Your task to perform on an android device: When is my next appointment? Image 0: 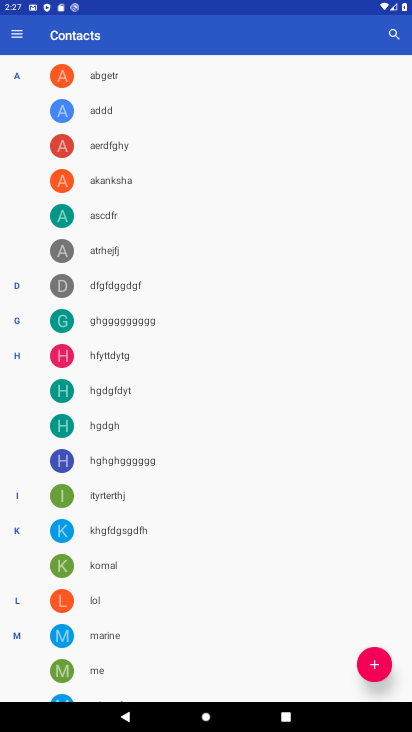
Step 0: press home button
Your task to perform on an android device: When is my next appointment? Image 1: 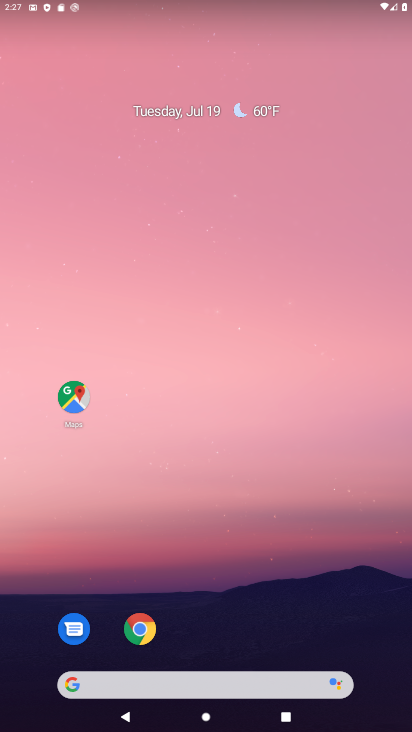
Step 1: drag from (288, 521) to (256, 187)
Your task to perform on an android device: When is my next appointment? Image 2: 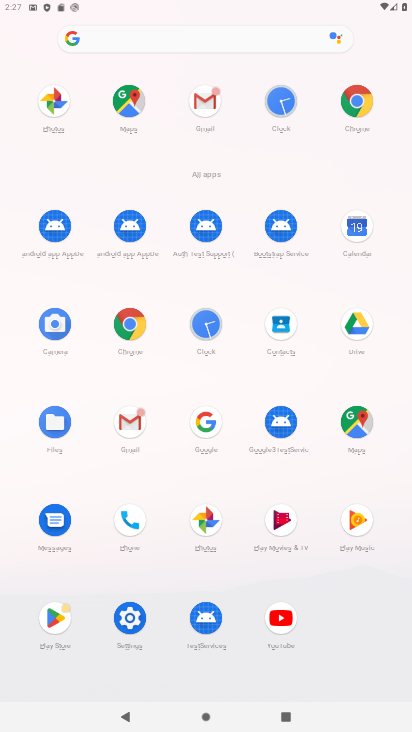
Step 2: drag from (351, 607) to (50, 615)
Your task to perform on an android device: When is my next appointment? Image 3: 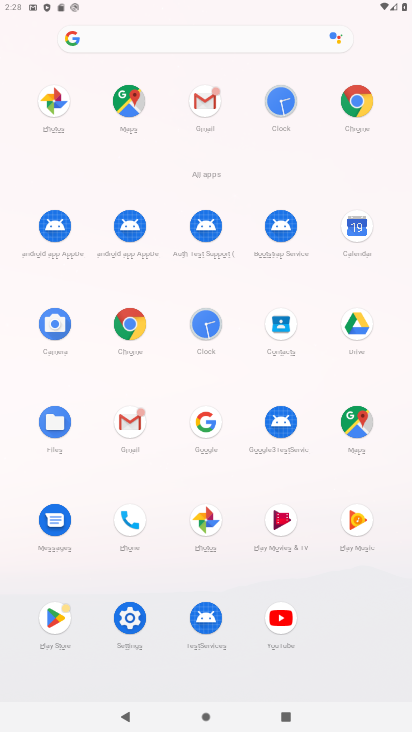
Step 3: click (352, 227)
Your task to perform on an android device: When is my next appointment? Image 4: 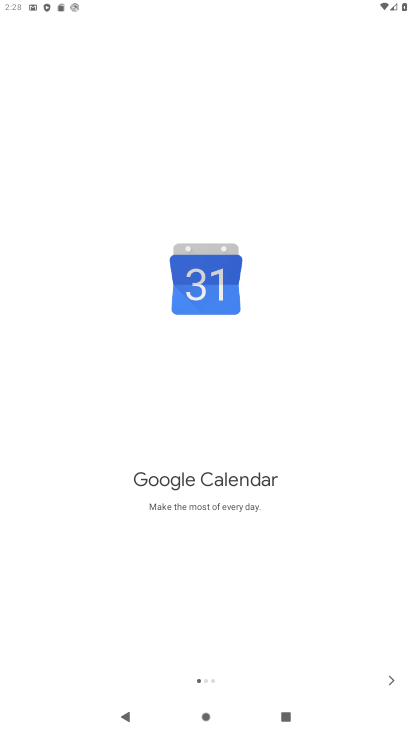
Step 4: click (387, 680)
Your task to perform on an android device: When is my next appointment? Image 5: 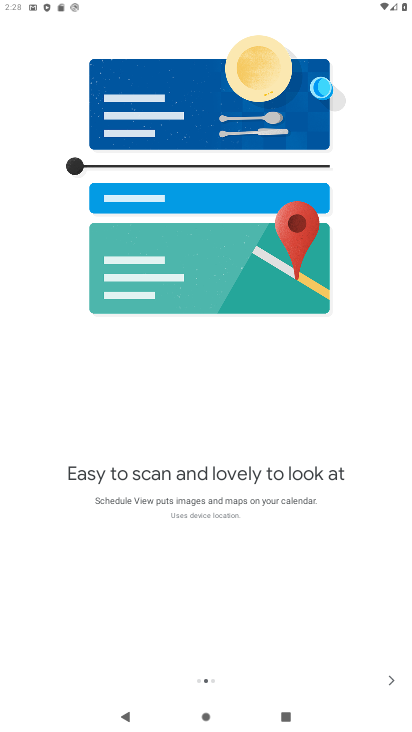
Step 5: click (387, 680)
Your task to perform on an android device: When is my next appointment? Image 6: 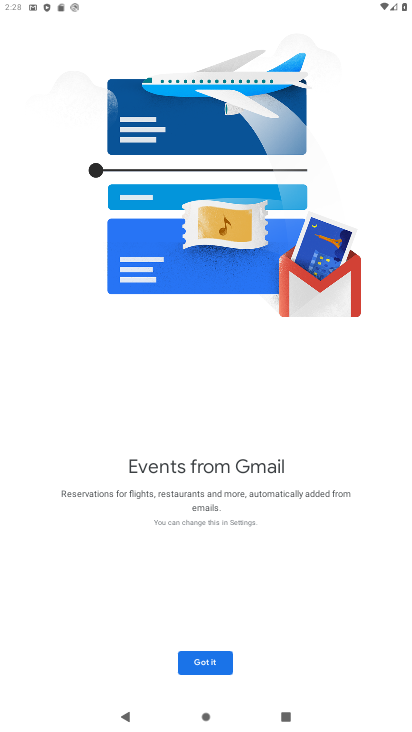
Step 6: click (387, 680)
Your task to perform on an android device: When is my next appointment? Image 7: 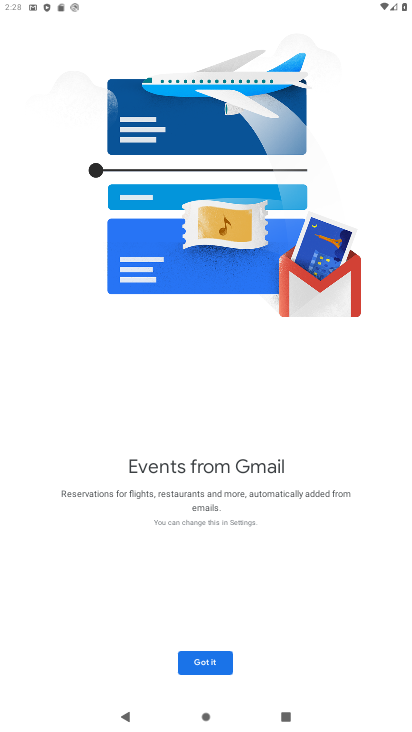
Step 7: click (210, 672)
Your task to perform on an android device: When is my next appointment? Image 8: 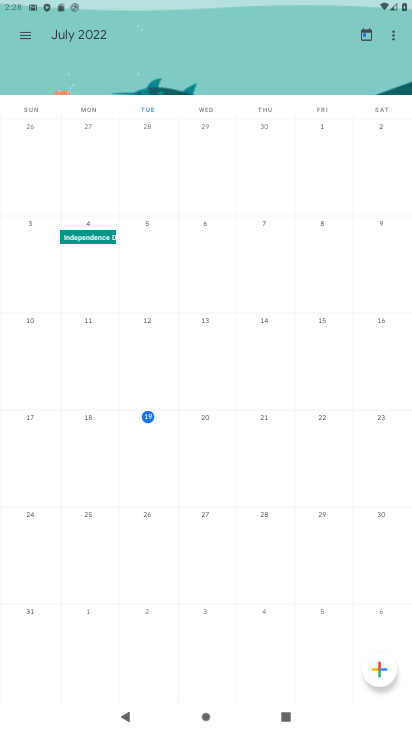
Step 8: task complete